Your task to perform on an android device: create a new album in the google photos Image 0: 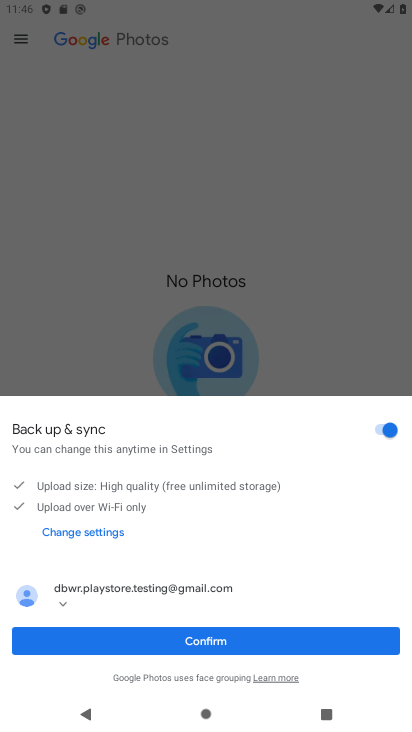
Step 0: click (189, 644)
Your task to perform on an android device: create a new album in the google photos Image 1: 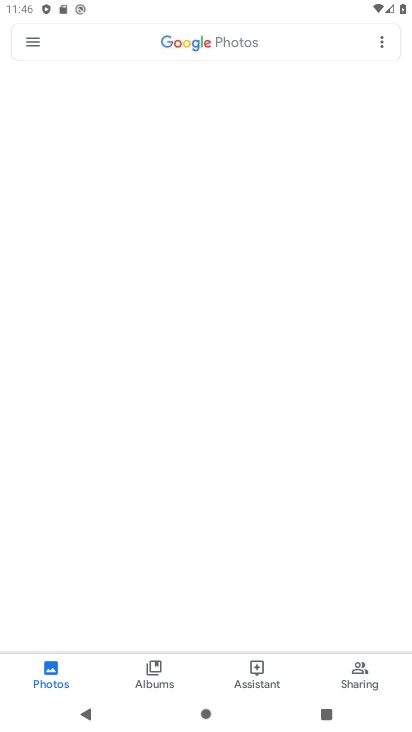
Step 1: click (11, 32)
Your task to perform on an android device: create a new album in the google photos Image 2: 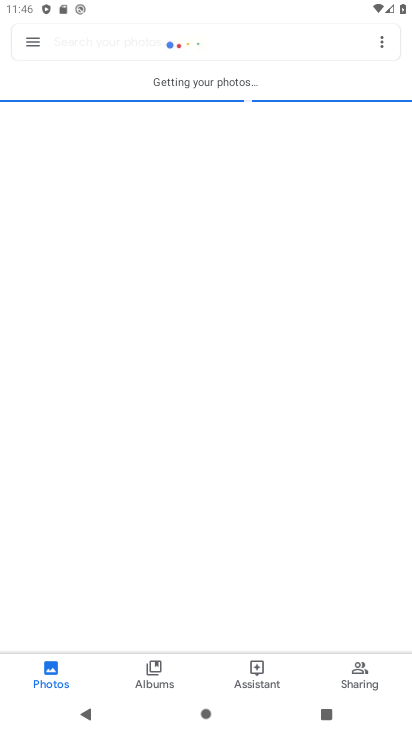
Step 2: click (153, 675)
Your task to perform on an android device: create a new album in the google photos Image 3: 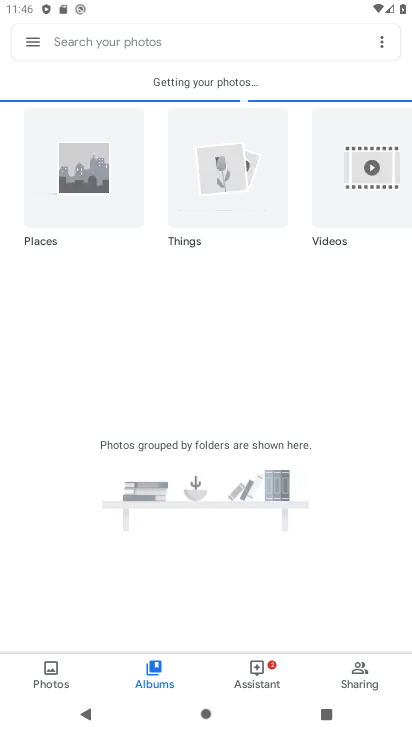
Step 3: click (384, 42)
Your task to perform on an android device: create a new album in the google photos Image 4: 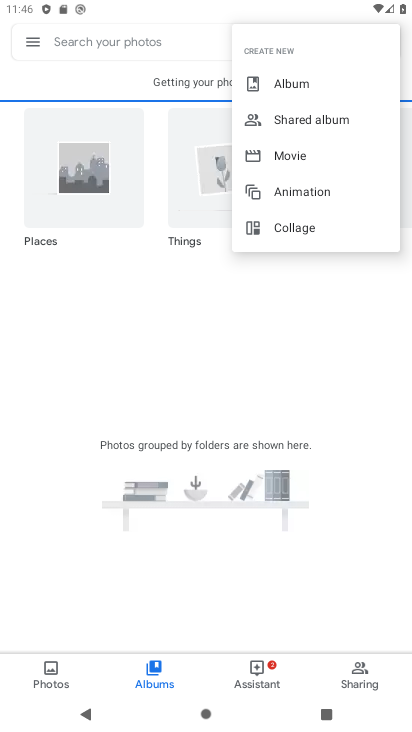
Step 4: click (291, 81)
Your task to perform on an android device: create a new album in the google photos Image 5: 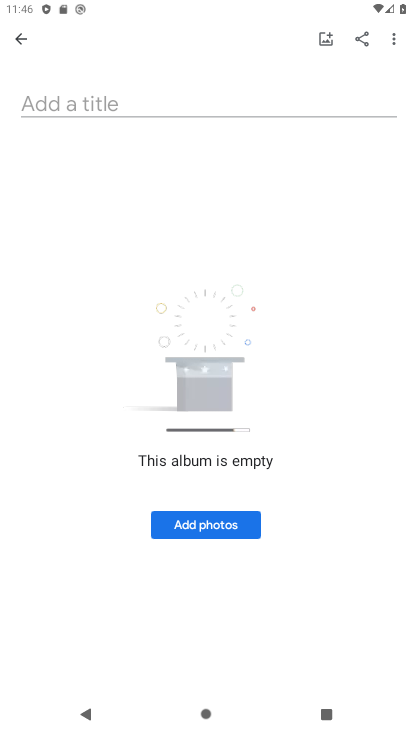
Step 5: click (133, 100)
Your task to perform on an android device: create a new album in the google photos Image 6: 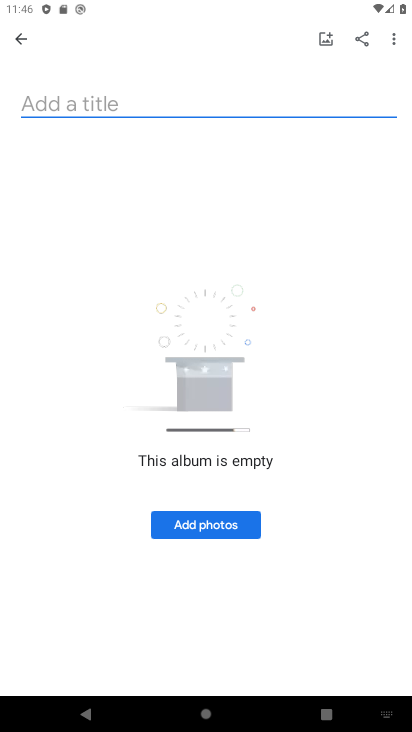
Step 6: type "mkj"
Your task to perform on an android device: create a new album in the google photos Image 7: 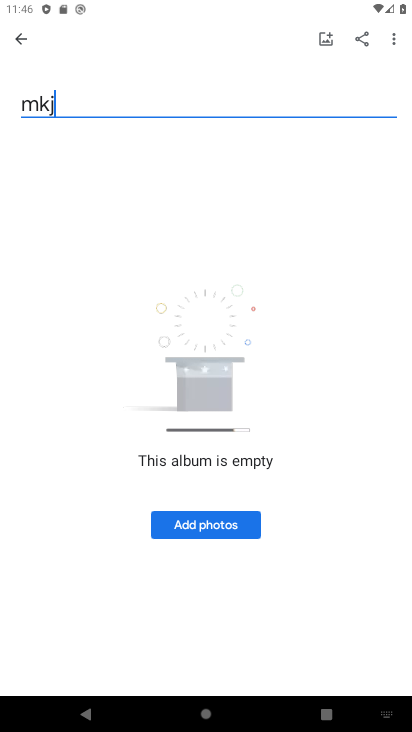
Step 7: click (204, 524)
Your task to perform on an android device: create a new album in the google photos Image 8: 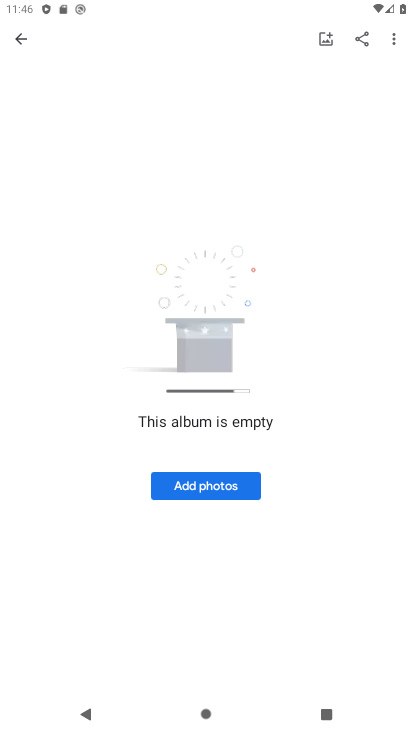
Step 8: click (224, 496)
Your task to perform on an android device: create a new album in the google photos Image 9: 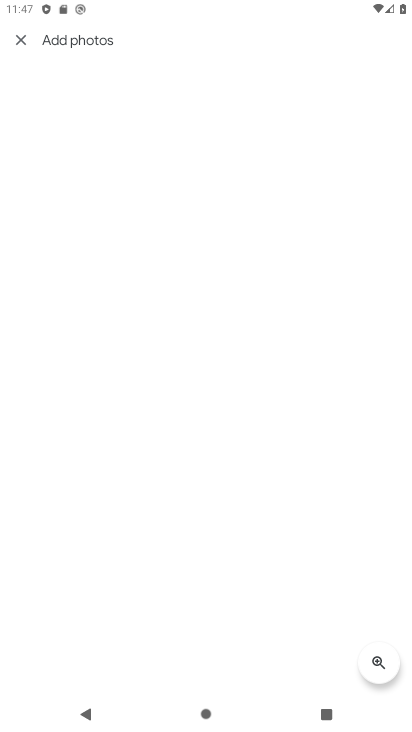
Step 9: click (20, 36)
Your task to perform on an android device: create a new album in the google photos Image 10: 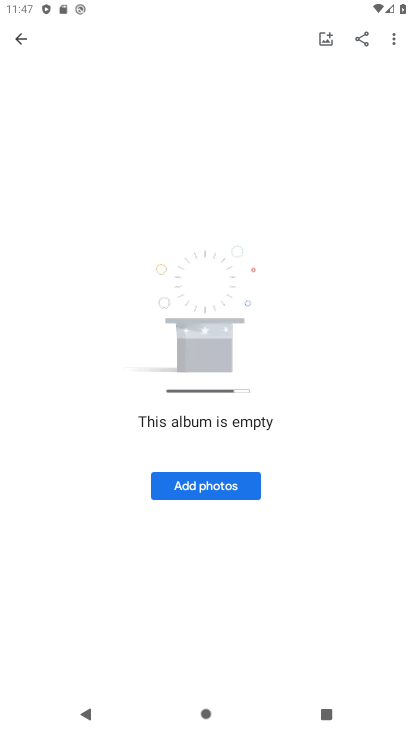
Step 10: click (244, 491)
Your task to perform on an android device: create a new album in the google photos Image 11: 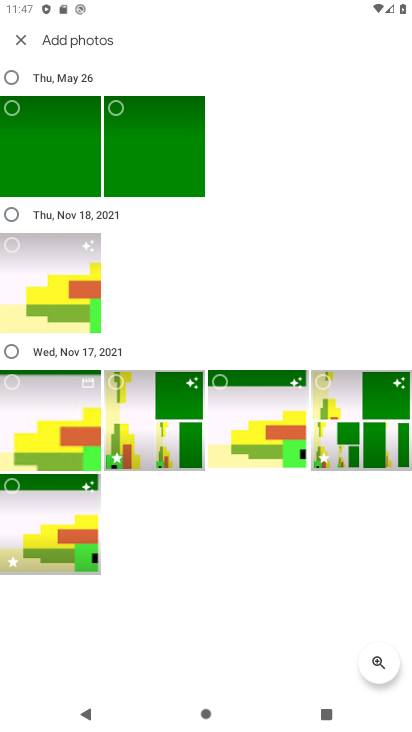
Step 11: click (154, 436)
Your task to perform on an android device: create a new album in the google photos Image 12: 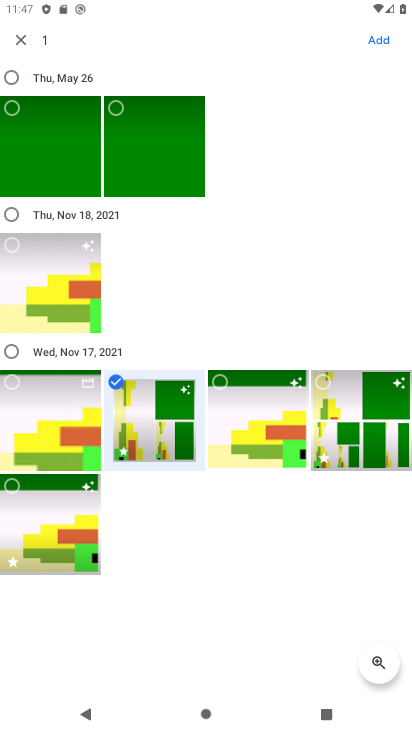
Step 12: click (370, 43)
Your task to perform on an android device: create a new album in the google photos Image 13: 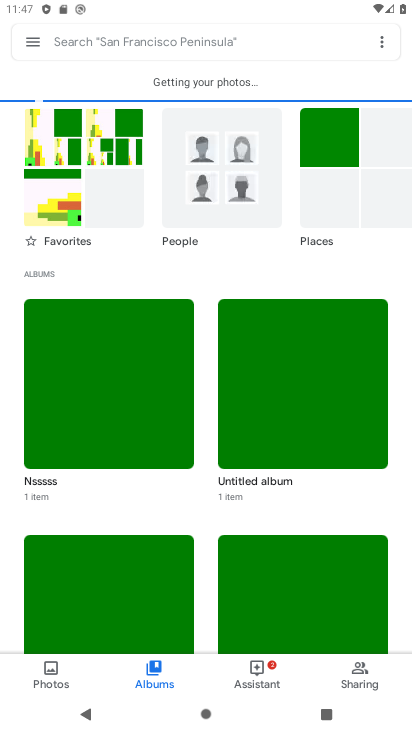
Step 13: task complete